Your task to perform on an android device: check the backup settings in the google photos Image 0: 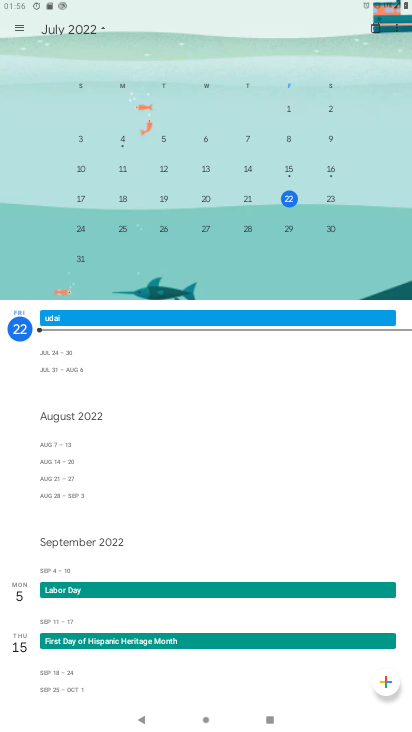
Step 0: press home button
Your task to perform on an android device: check the backup settings in the google photos Image 1: 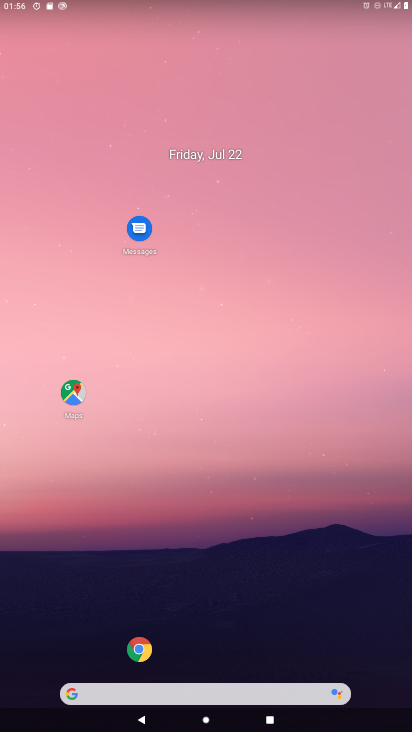
Step 1: drag from (32, 708) to (138, 310)
Your task to perform on an android device: check the backup settings in the google photos Image 2: 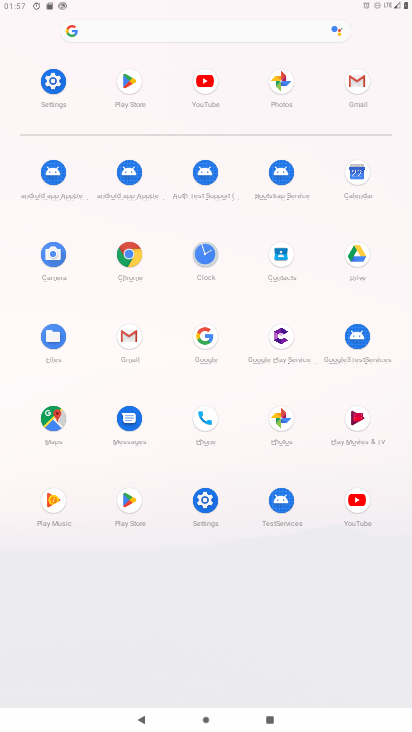
Step 2: click (275, 421)
Your task to perform on an android device: check the backup settings in the google photos Image 3: 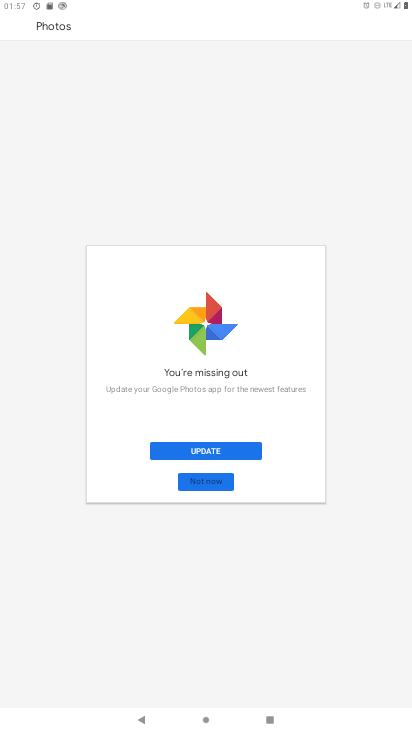
Step 3: click (211, 444)
Your task to perform on an android device: check the backup settings in the google photos Image 4: 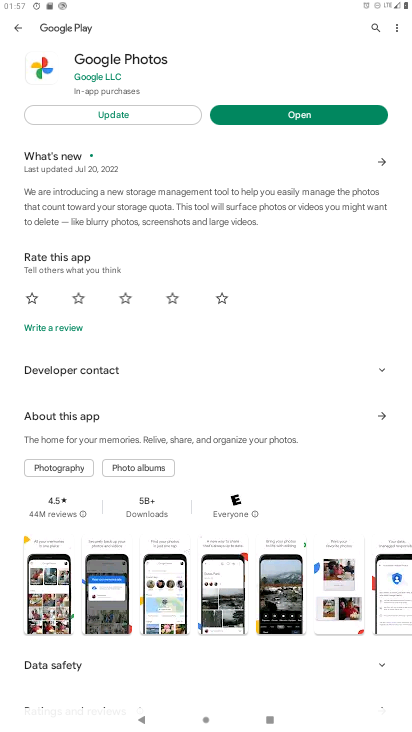
Step 4: click (293, 118)
Your task to perform on an android device: check the backup settings in the google photos Image 5: 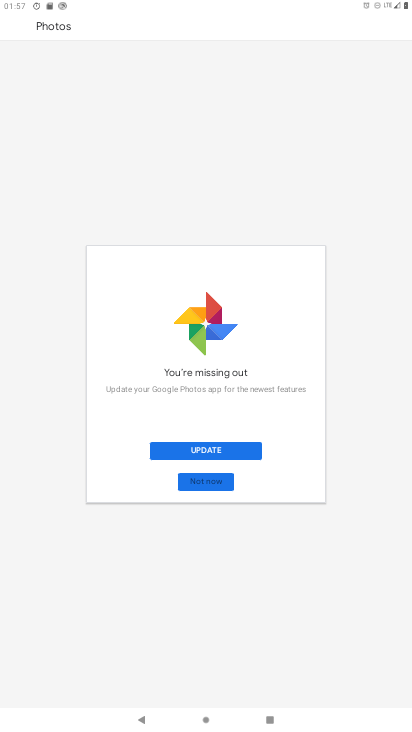
Step 5: task complete